Your task to perform on an android device: Go to accessibility settings Image 0: 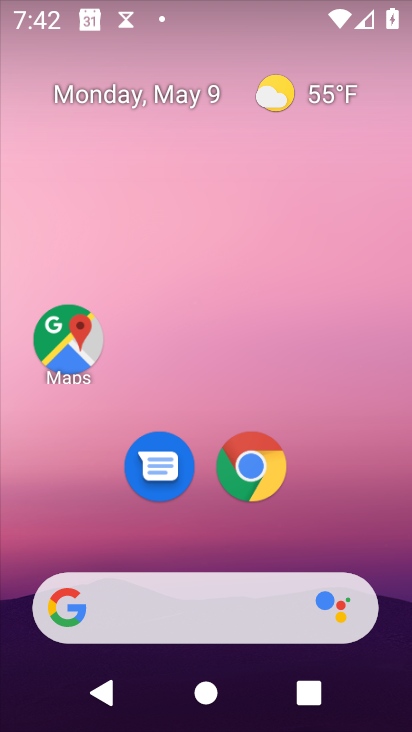
Step 0: drag from (332, 556) to (234, 132)
Your task to perform on an android device: Go to accessibility settings Image 1: 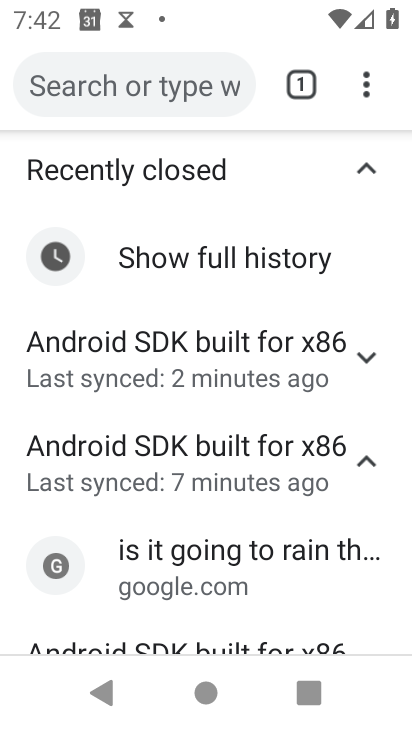
Step 1: press back button
Your task to perform on an android device: Go to accessibility settings Image 2: 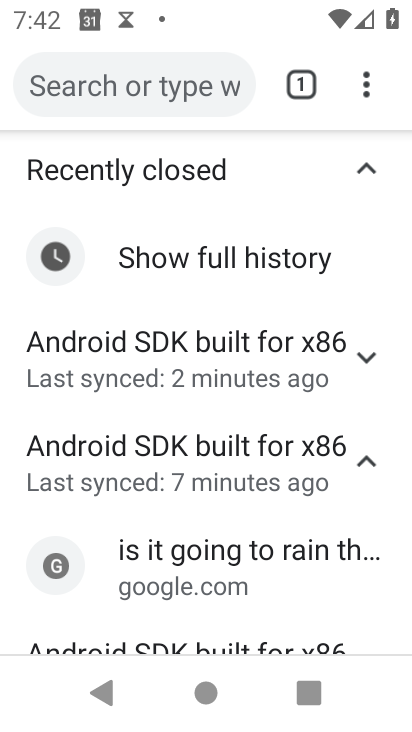
Step 2: press back button
Your task to perform on an android device: Go to accessibility settings Image 3: 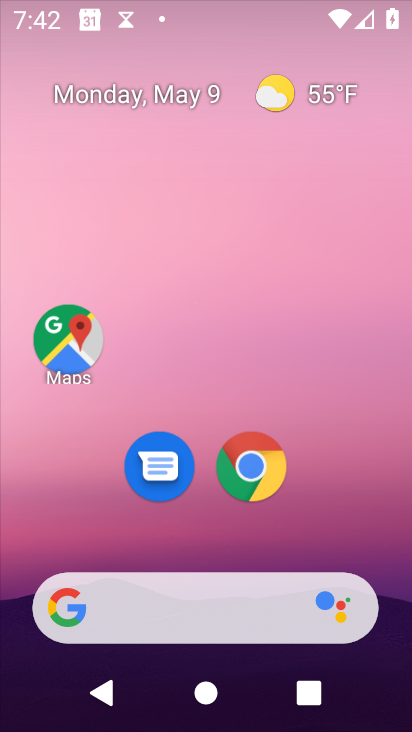
Step 3: drag from (337, 573) to (203, 133)
Your task to perform on an android device: Go to accessibility settings Image 4: 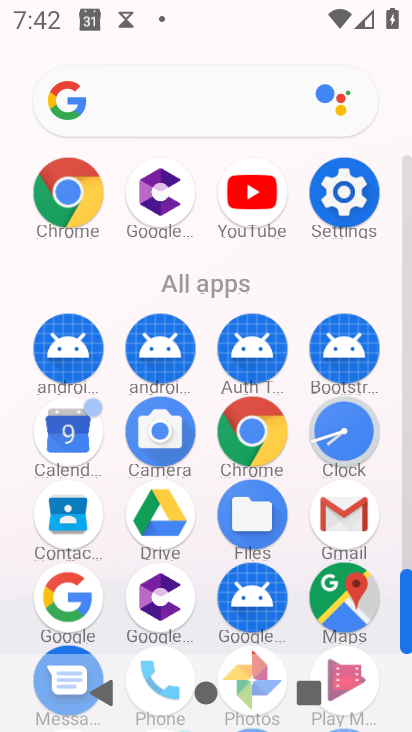
Step 4: click (336, 197)
Your task to perform on an android device: Go to accessibility settings Image 5: 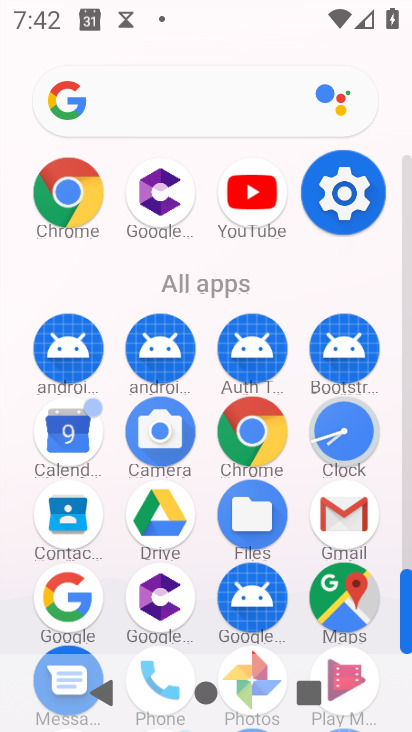
Step 5: click (339, 211)
Your task to perform on an android device: Go to accessibility settings Image 6: 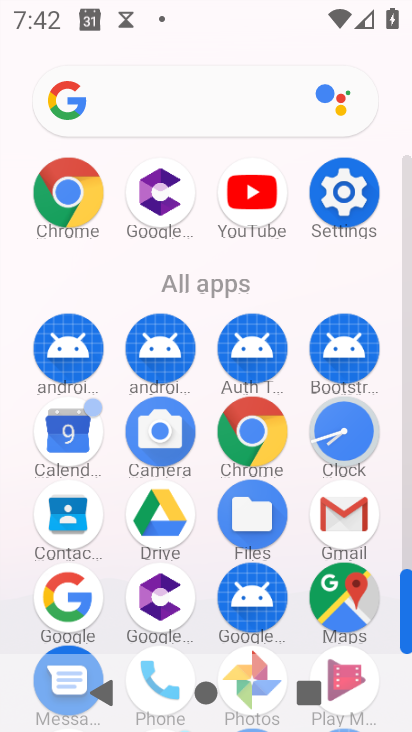
Step 6: click (336, 189)
Your task to perform on an android device: Go to accessibility settings Image 7: 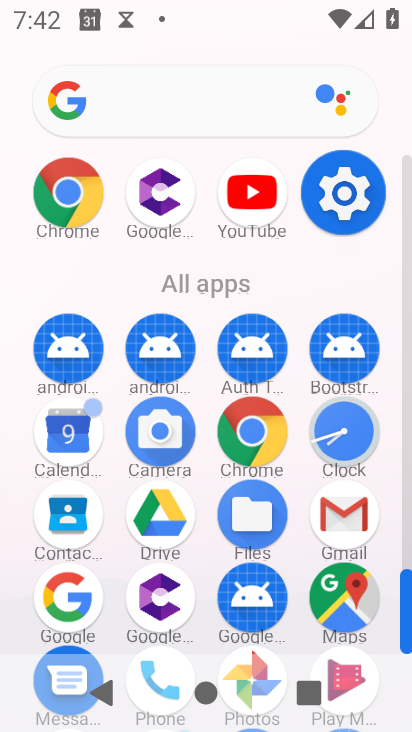
Step 7: click (339, 193)
Your task to perform on an android device: Go to accessibility settings Image 8: 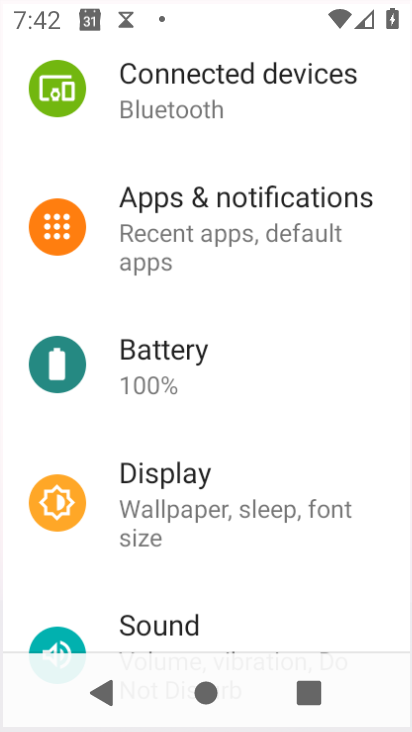
Step 8: click (339, 193)
Your task to perform on an android device: Go to accessibility settings Image 9: 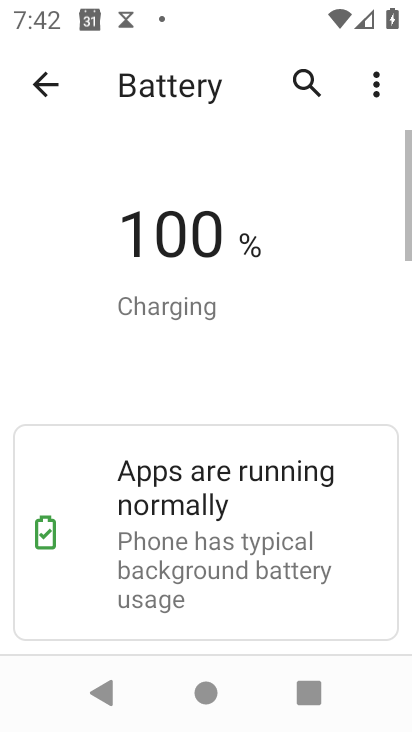
Step 9: click (44, 75)
Your task to perform on an android device: Go to accessibility settings Image 10: 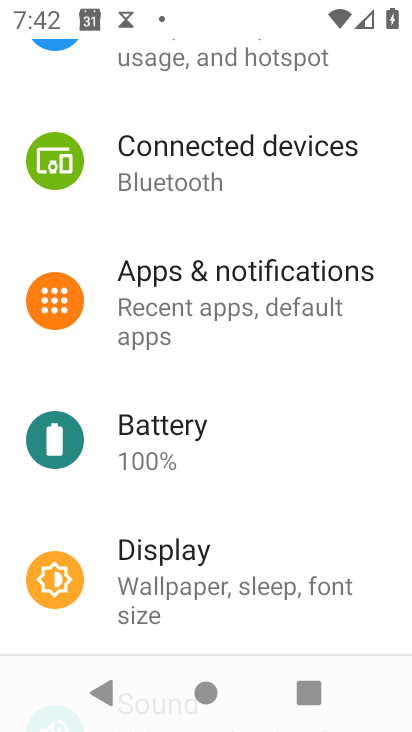
Step 10: drag from (225, 532) to (190, 39)
Your task to perform on an android device: Go to accessibility settings Image 11: 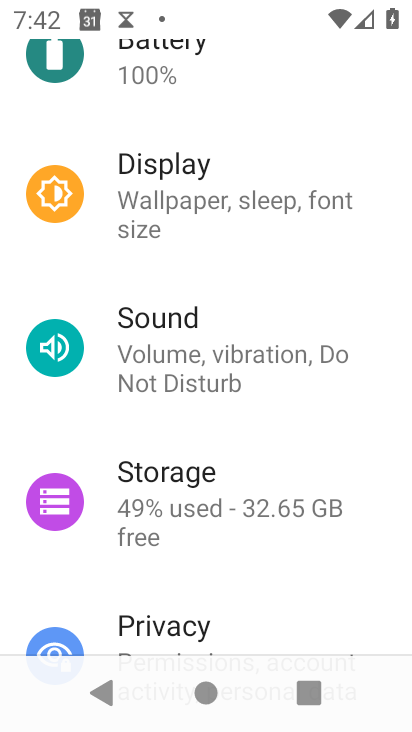
Step 11: drag from (212, 430) to (191, 138)
Your task to perform on an android device: Go to accessibility settings Image 12: 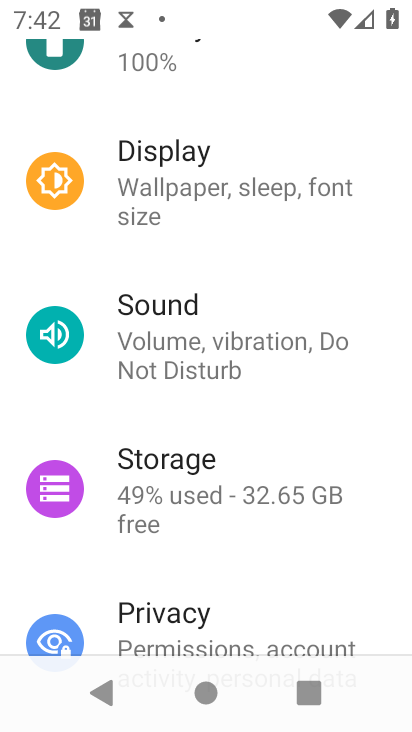
Step 12: drag from (217, 504) to (184, 253)
Your task to perform on an android device: Go to accessibility settings Image 13: 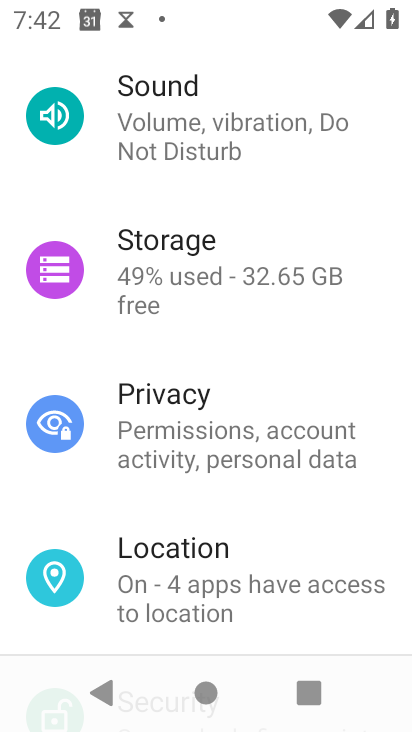
Step 13: drag from (215, 463) to (211, 116)
Your task to perform on an android device: Go to accessibility settings Image 14: 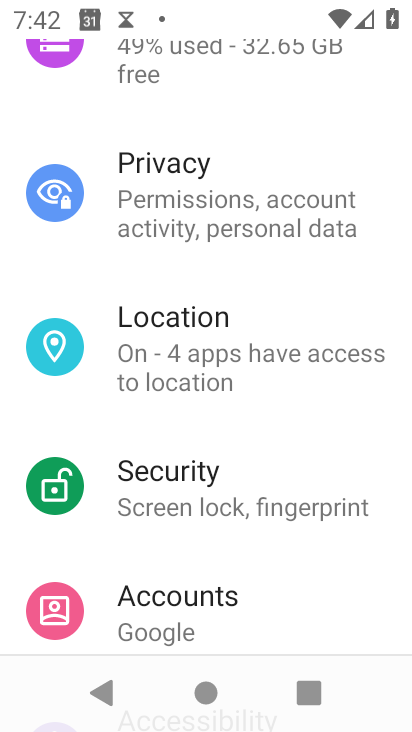
Step 14: drag from (246, 469) to (226, 30)
Your task to perform on an android device: Go to accessibility settings Image 15: 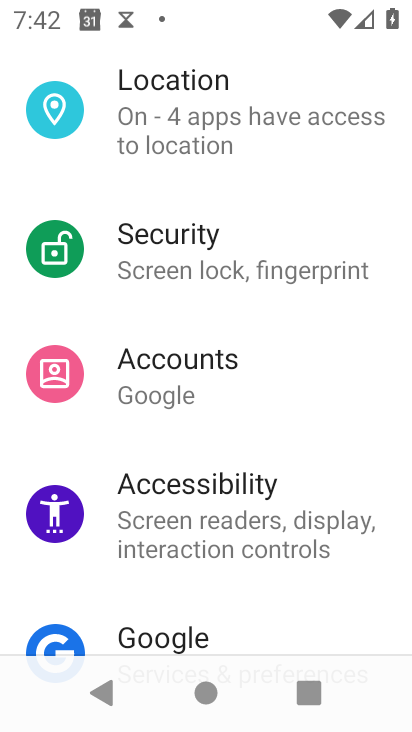
Step 15: drag from (255, 453) to (224, 194)
Your task to perform on an android device: Go to accessibility settings Image 16: 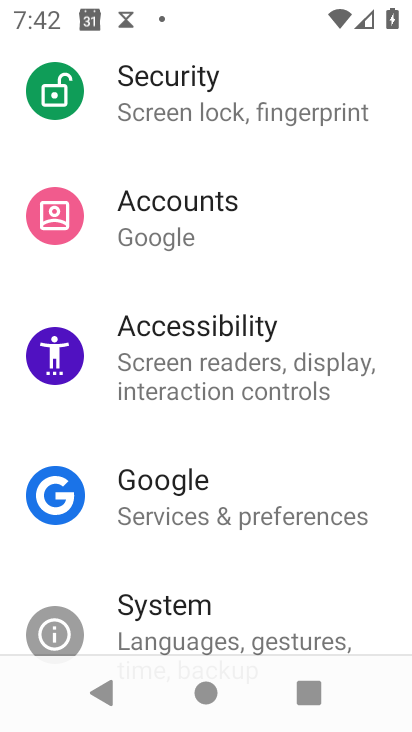
Step 16: drag from (227, 424) to (204, 167)
Your task to perform on an android device: Go to accessibility settings Image 17: 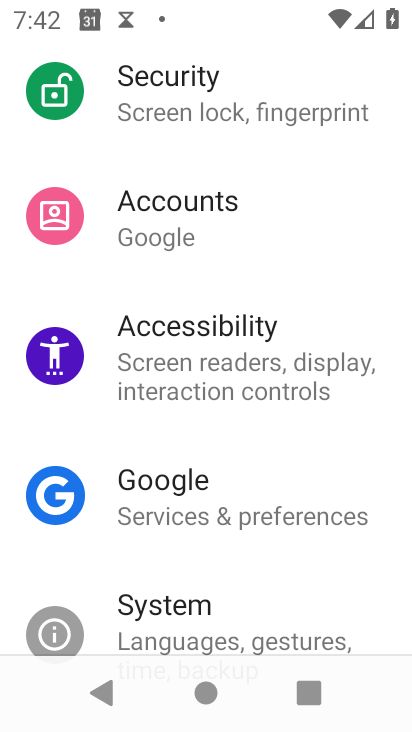
Step 17: click (221, 357)
Your task to perform on an android device: Go to accessibility settings Image 18: 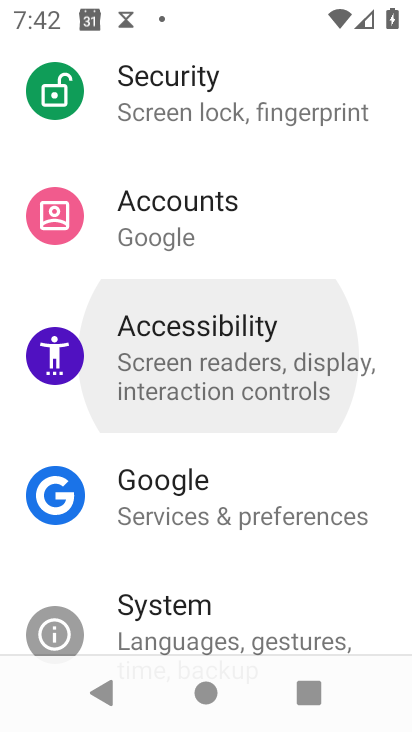
Step 18: click (221, 357)
Your task to perform on an android device: Go to accessibility settings Image 19: 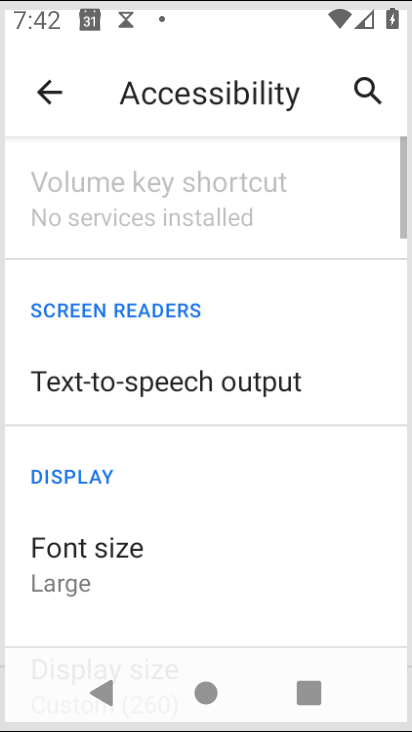
Step 19: click (221, 366)
Your task to perform on an android device: Go to accessibility settings Image 20: 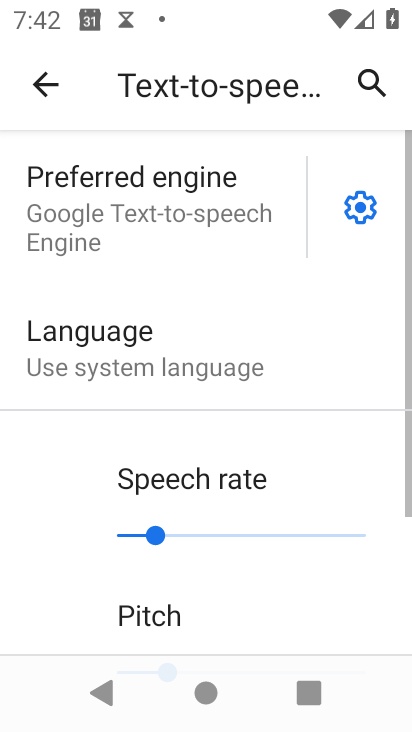
Step 20: click (37, 93)
Your task to perform on an android device: Go to accessibility settings Image 21: 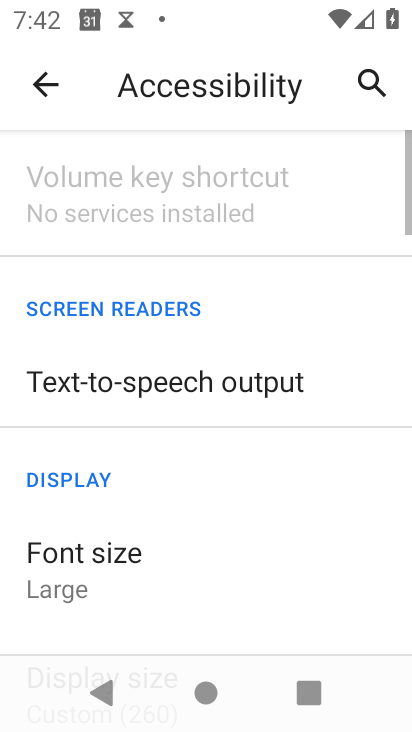
Step 21: task complete